Your task to perform on an android device: turn off location history Image 0: 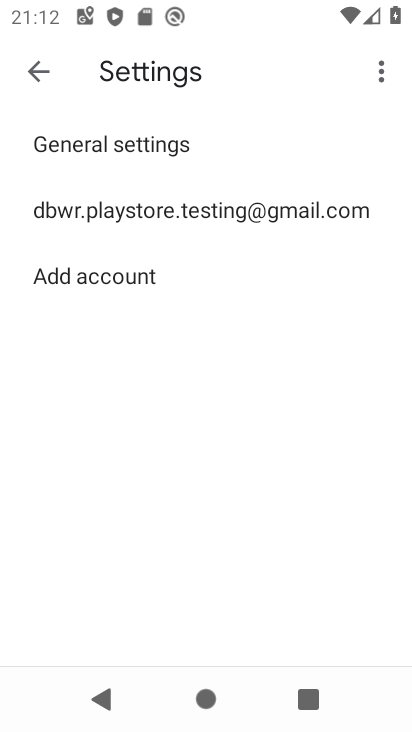
Step 0: press home button
Your task to perform on an android device: turn off location history Image 1: 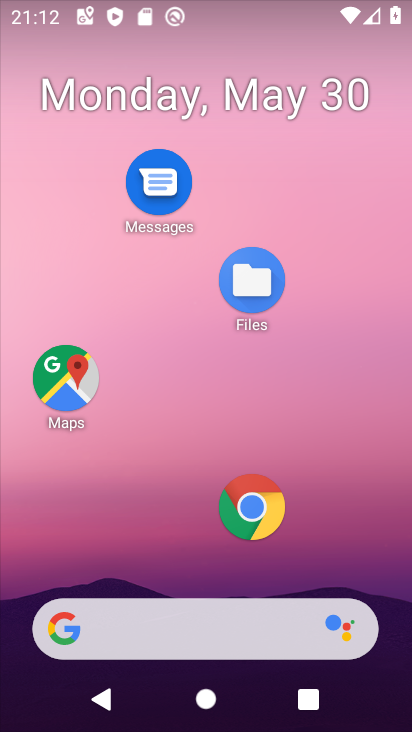
Step 1: drag from (174, 554) to (42, 10)
Your task to perform on an android device: turn off location history Image 2: 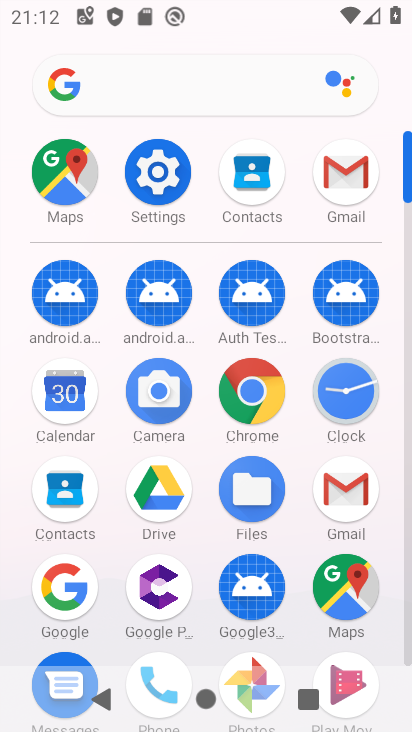
Step 2: click (146, 171)
Your task to perform on an android device: turn off location history Image 3: 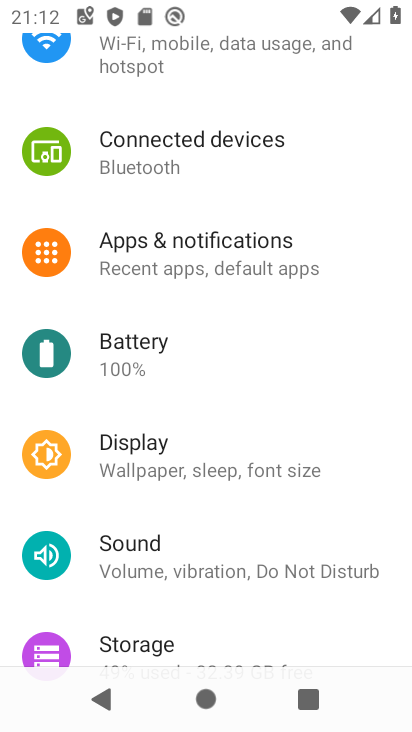
Step 3: drag from (197, 589) to (207, 289)
Your task to perform on an android device: turn off location history Image 4: 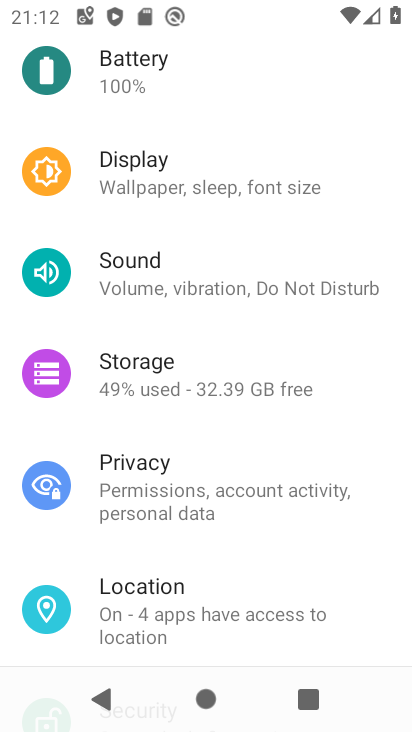
Step 4: click (181, 609)
Your task to perform on an android device: turn off location history Image 5: 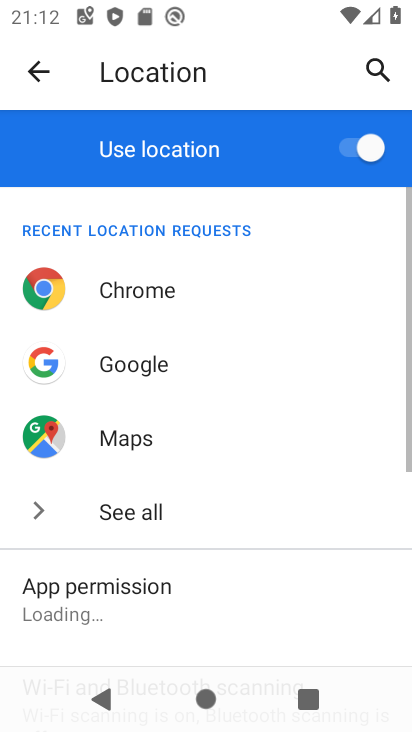
Step 5: drag from (205, 395) to (225, 102)
Your task to perform on an android device: turn off location history Image 6: 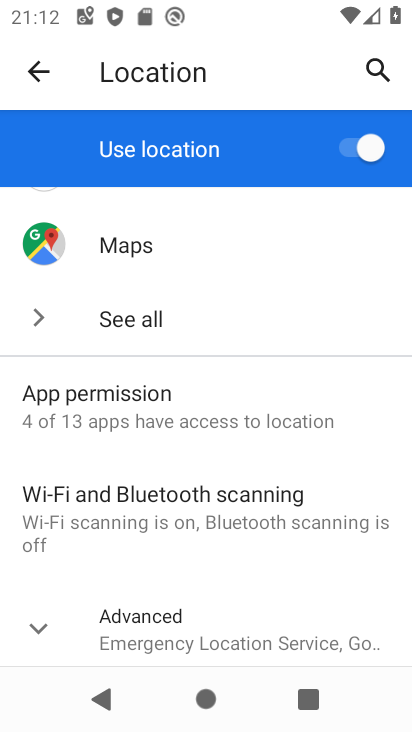
Step 6: drag from (230, 579) to (302, 166)
Your task to perform on an android device: turn off location history Image 7: 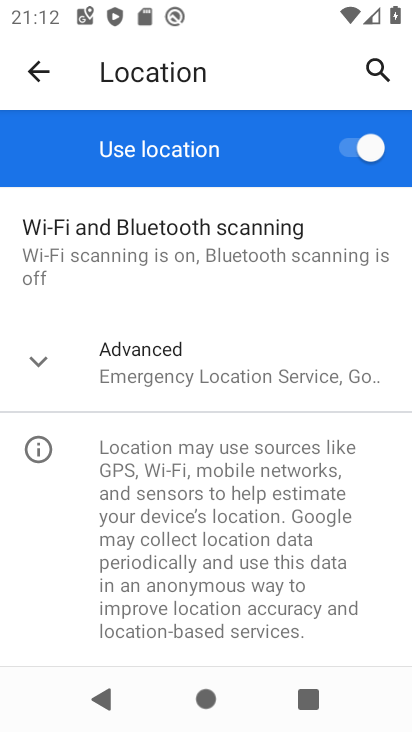
Step 7: click (112, 375)
Your task to perform on an android device: turn off location history Image 8: 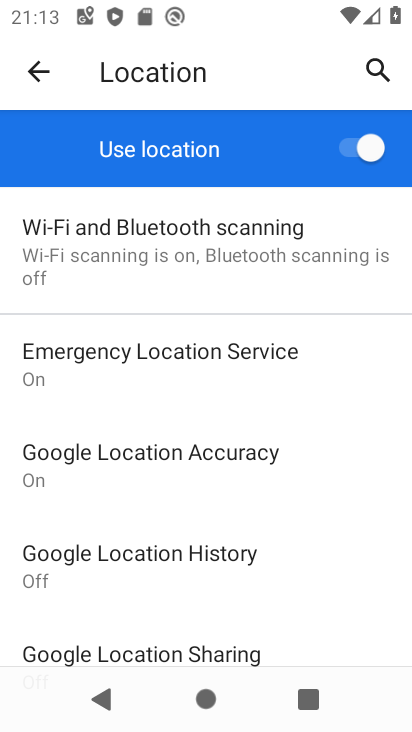
Step 8: click (200, 576)
Your task to perform on an android device: turn off location history Image 9: 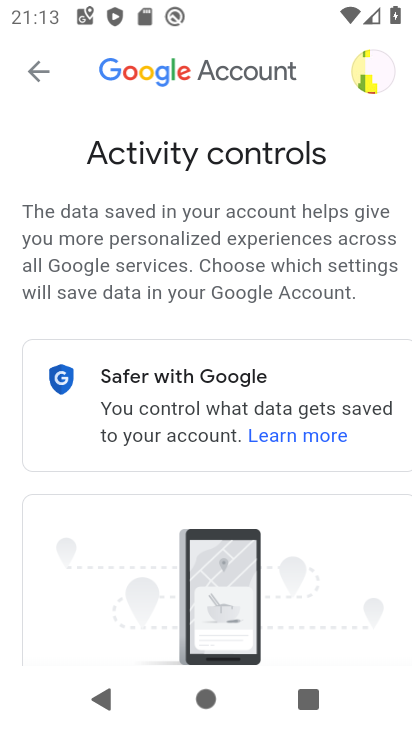
Step 9: task complete